Your task to perform on an android device: empty trash in the gmail app Image 0: 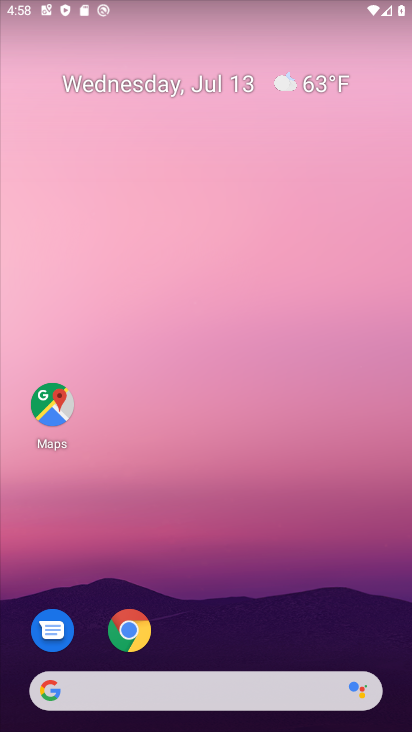
Step 0: press home button
Your task to perform on an android device: empty trash in the gmail app Image 1: 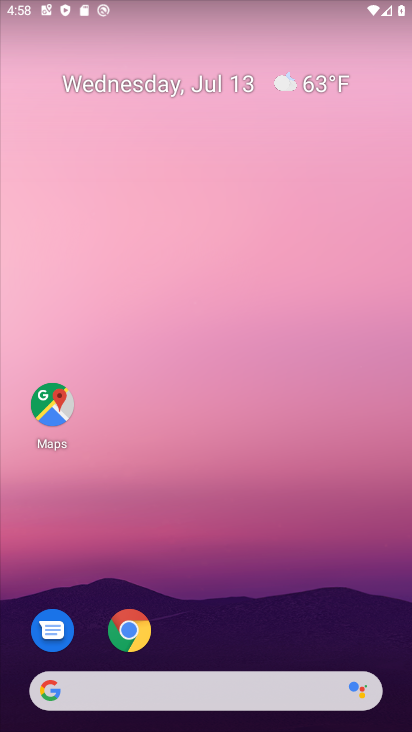
Step 1: drag from (214, 639) to (244, 241)
Your task to perform on an android device: empty trash in the gmail app Image 2: 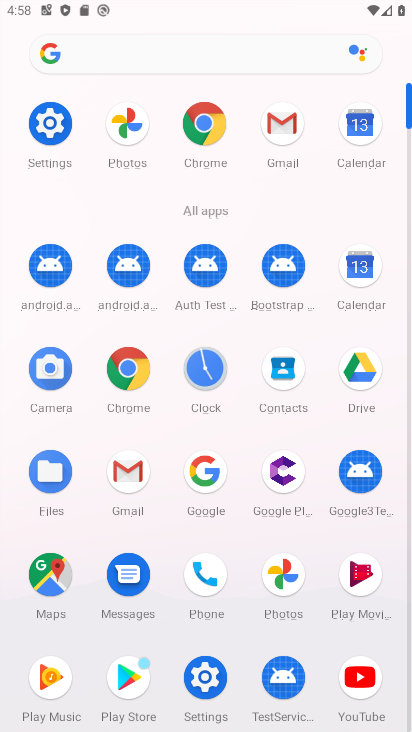
Step 2: click (281, 120)
Your task to perform on an android device: empty trash in the gmail app Image 3: 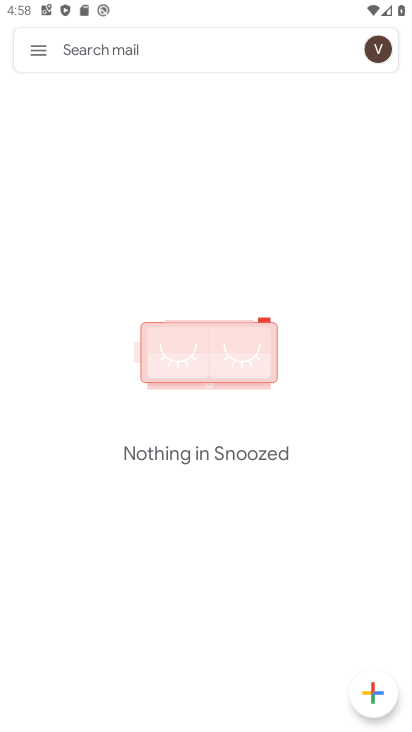
Step 3: click (38, 47)
Your task to perform on an android device: empty trash in the gmail app Image 4: 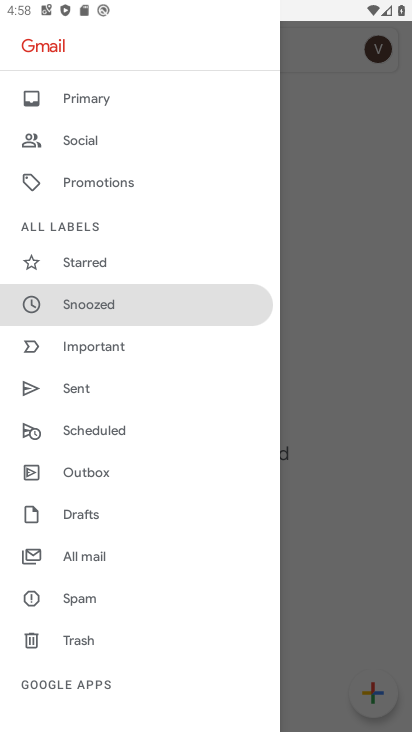
Step 4: click (72, 648)
Your task to perform on an android device: empty trash in the gmail app Image 5: 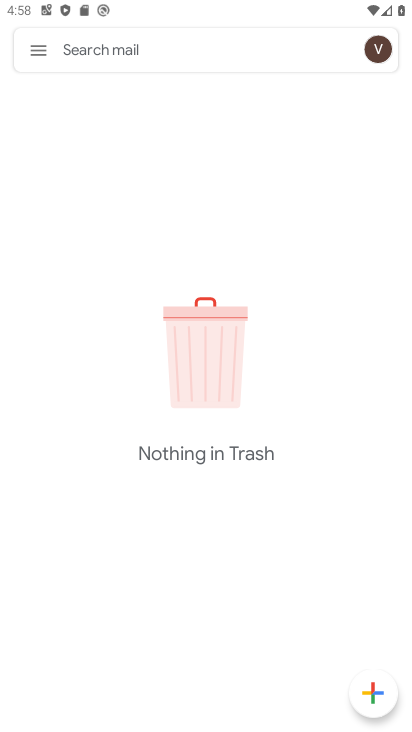
Step 5: task complete